Your task to perform on an android device: open the mobile data screen to see how much data has been used Image 0: 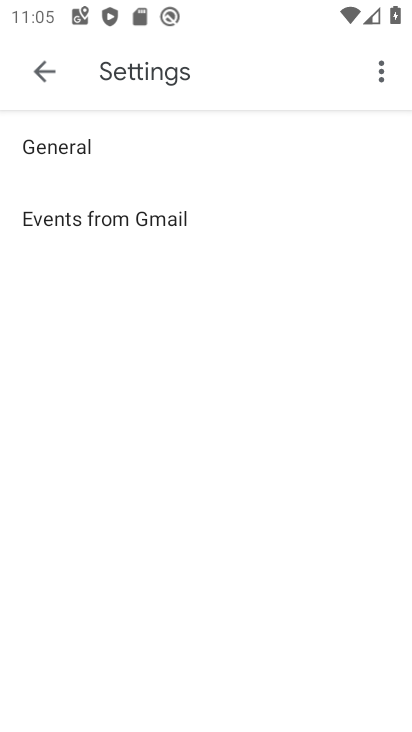
Step 0: press home button
Your task to perform on an android device: open the mobile data screen to see how much data has been used Image 1: 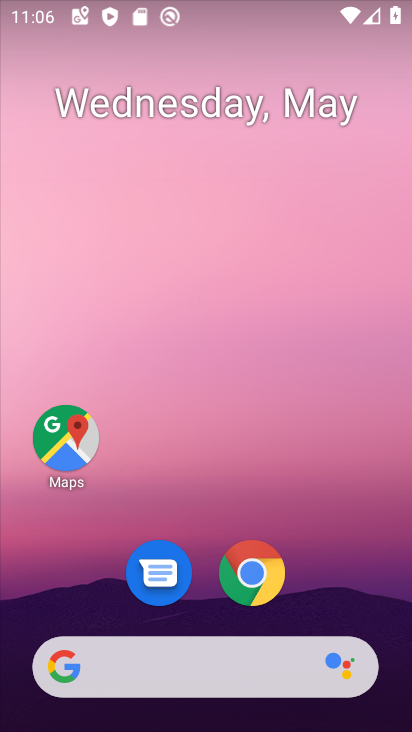
Step 1: drag from (314, 561) to (334, 12)
Your task to perform on an android device: open the mobile data screen to see how much data has been used Image 2: 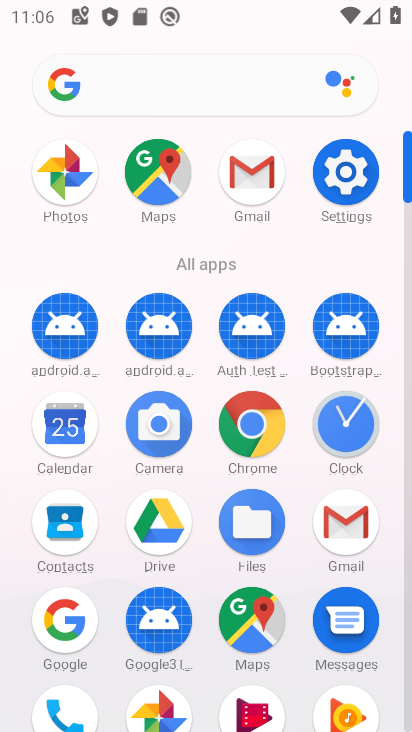
Step 2: click (343, 165)
Your task to perform on an android device: open the mobile data screen to see how much data has been used Image 3: 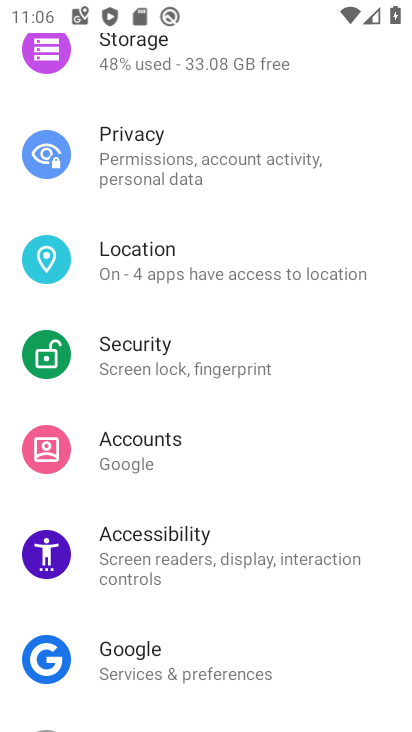
Step 3: drag from (228, 116) to (308, 634)
Your task to perform on an android device: open the mobile data screen to see how much data has been used Image 4: 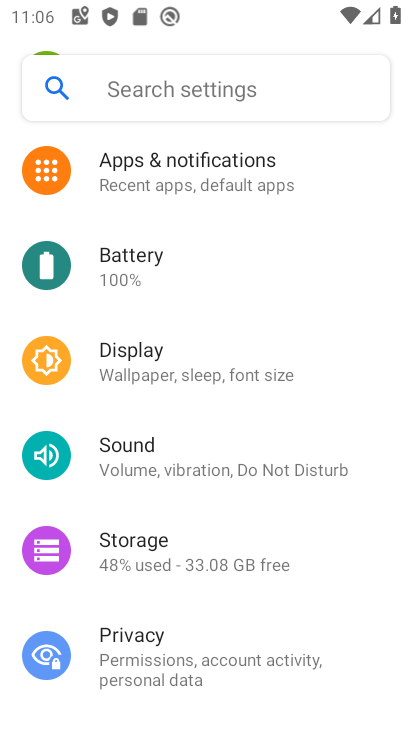
Step 4: drag from (183, 227) to (236, 652)
Your task to perform on an android device: open the mobile data screen to see how much data has been used Image 5: 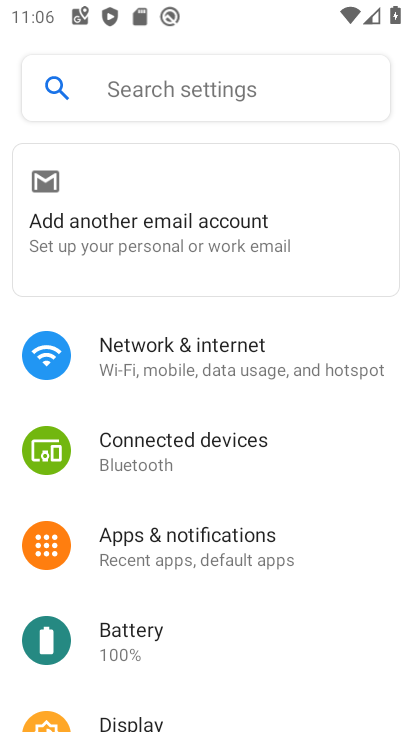
Step 5: click (176, 347)
Your task to perform on an android device: open the mobile data screen to see how much data has been used Image 6: 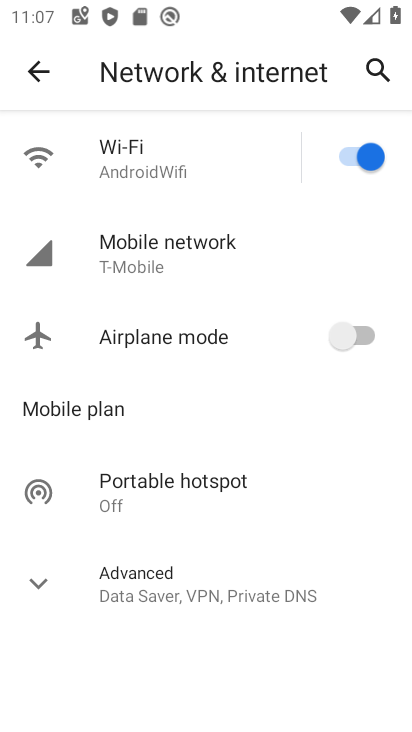
Step 6: click (141, 245)
Your task to perform on an android device: open the mobile data screen to see how much data has been used Image 7: 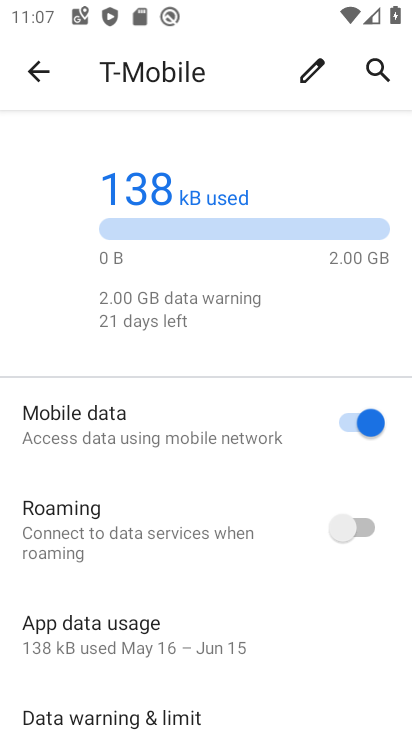
Step 7: task complete